Your task to perform on an android device: Open sound settings Image 0: 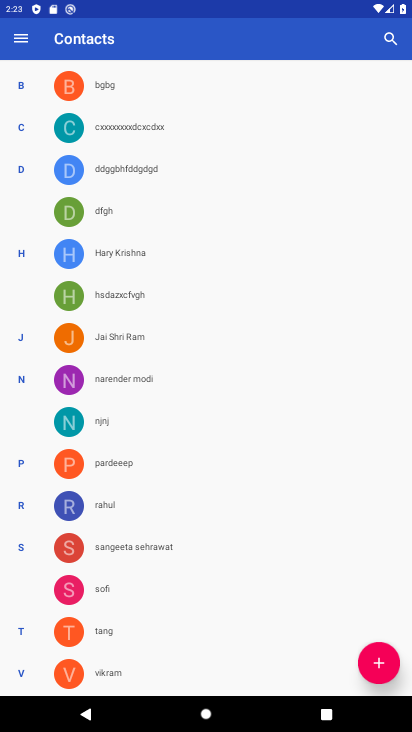
Step 0: press home button
Your task to perform on an android device: Open sound settings Image 1: 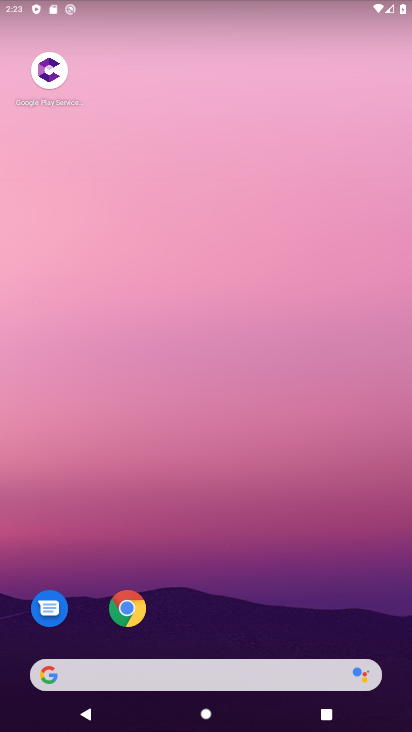
Step 1: drag from (294, 597) to (321, 198)
Your task to perform on an android device: Open sound settings Image 2: 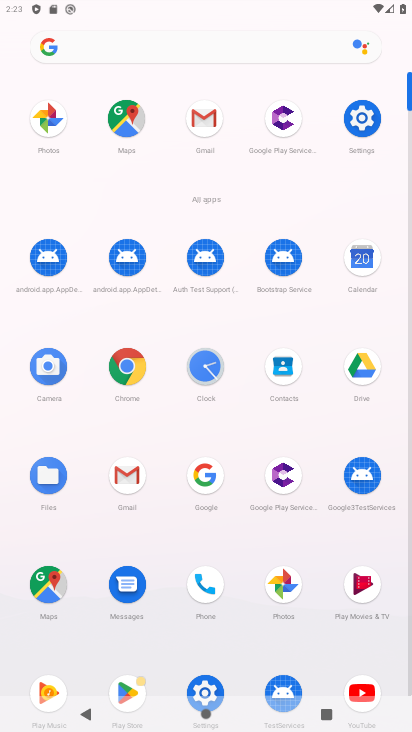
Step 2: click (206, 682)
Your task to perform on an android device: Open sound settings Image 3: 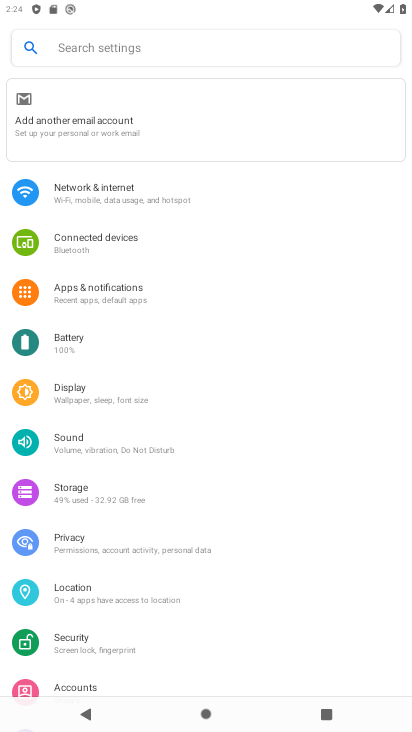
Step 3: click (137, 447)
Your task to perform on an android device: Open sound settings Image 4: 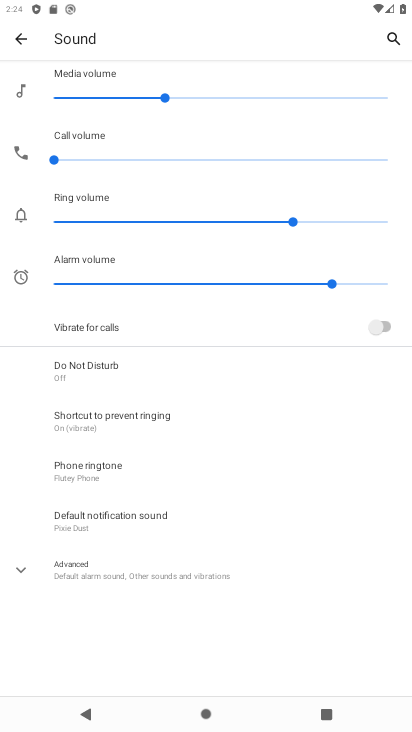
Step 4: task complete